Your task to perform on an android device: turn on sleep mode Image 0: 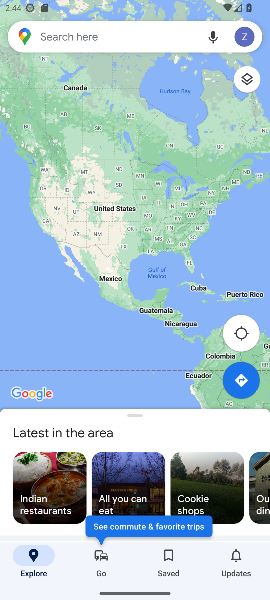
Step 0: press home button
Your task to perform on an android device: turn on sleep mode Image 1: 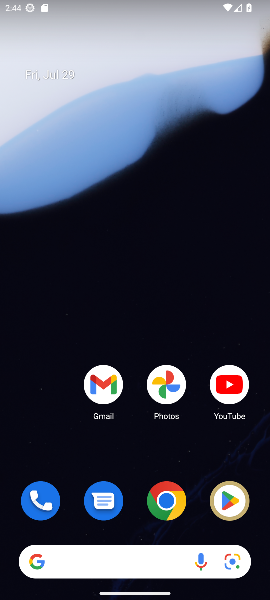
Step 1: drag from (126, 527) to (121, 103)
Your task to perform on an android device: turn on sleep mode Image 2: 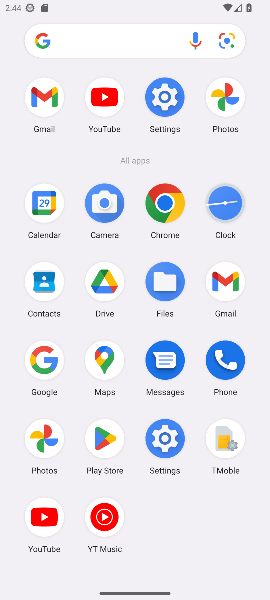
Step 2: click (173, 441)
Your task to perform on an android device: turn on sleep mode Image 3: 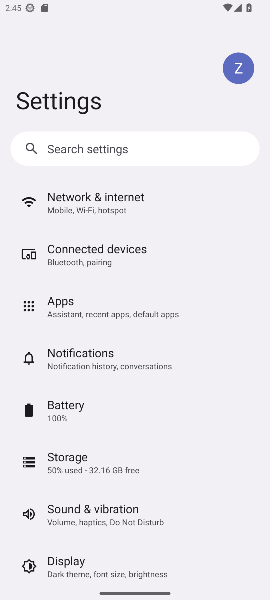
Step 3: drag from (134, 520) to (137, 412)
Your task to perform on an android device: turn on sleep mode Image 4: 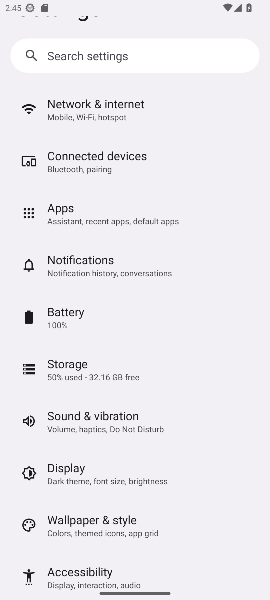
Step 4: click (124, 468)
Your task to perform on an android device: turn on sleep mode Image 5: 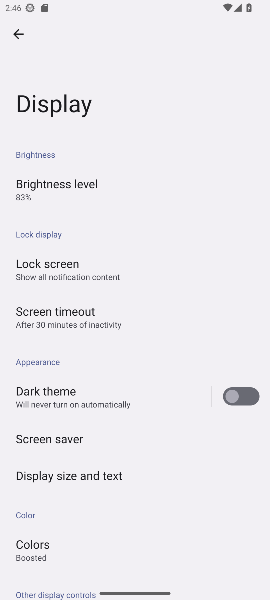
Step 5: task complete